Your task to perform on an android device: See recent photos Image 0: 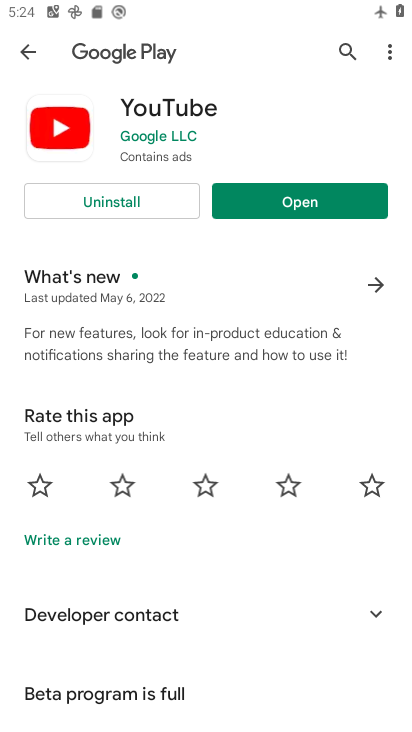
Step 0: press home button
Your task to perform on an android device: See recent photos Image 1: 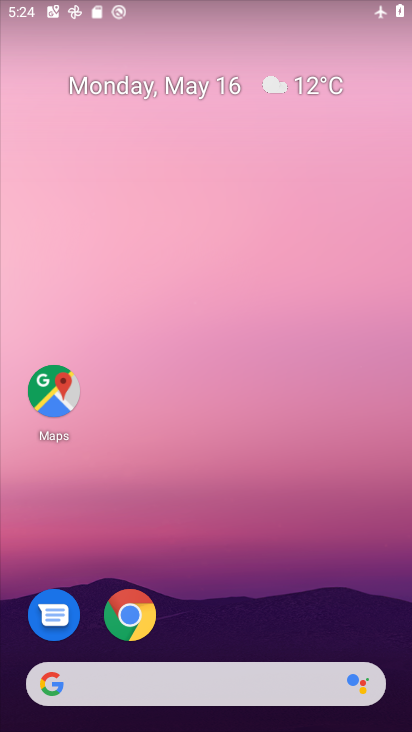
Step 1: drag from (240, 587) to (288, 14)
Your task to perform on an android device: See recent photos Image 2: 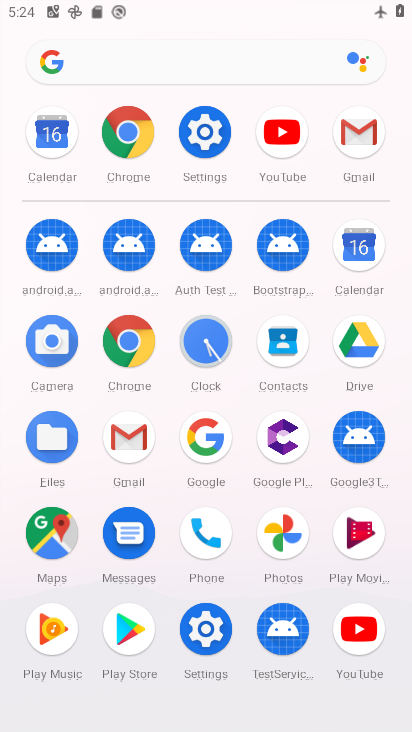
Step 2: click (295, 537)
Your task to perform on an android device: See recent photos Image 3: 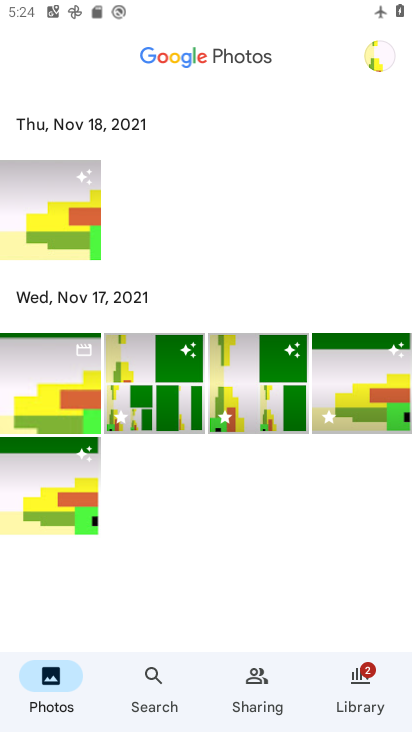
Step 3: click (368, 705)
Your task to perform on an android device: See recent photos Image 4: 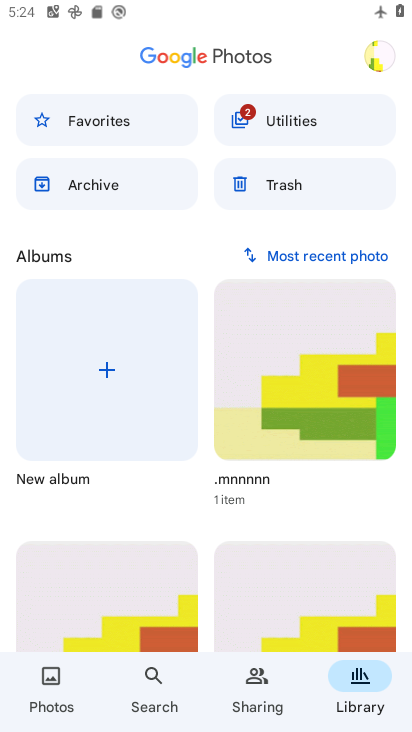
Step 4: task complete